Your task to perform on an android device: toggle javascript in the chrome app Image 0: 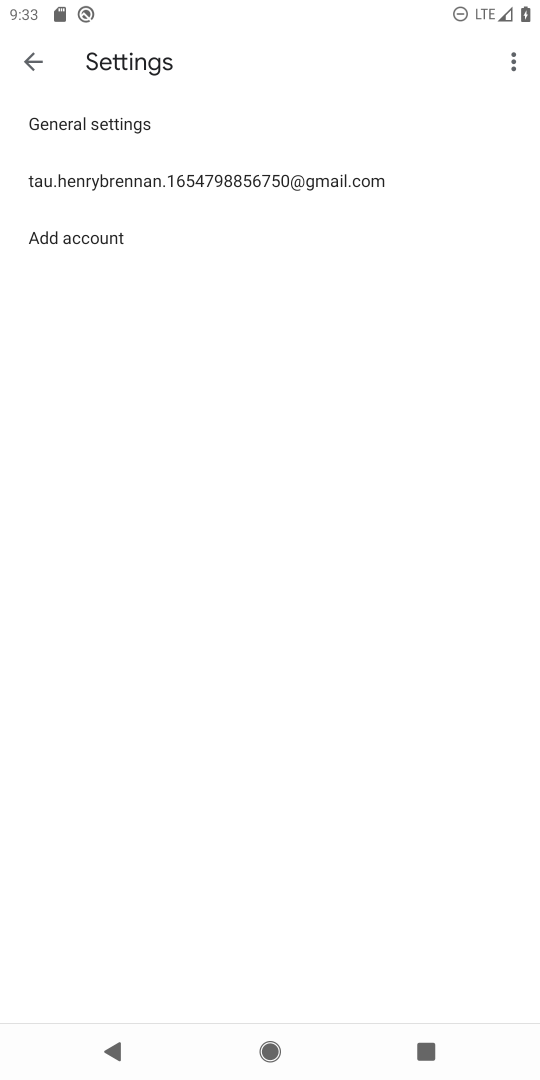
Step 0: press home button
Your task to perform on an android device: toggle javascript in the chrome app Image 1: 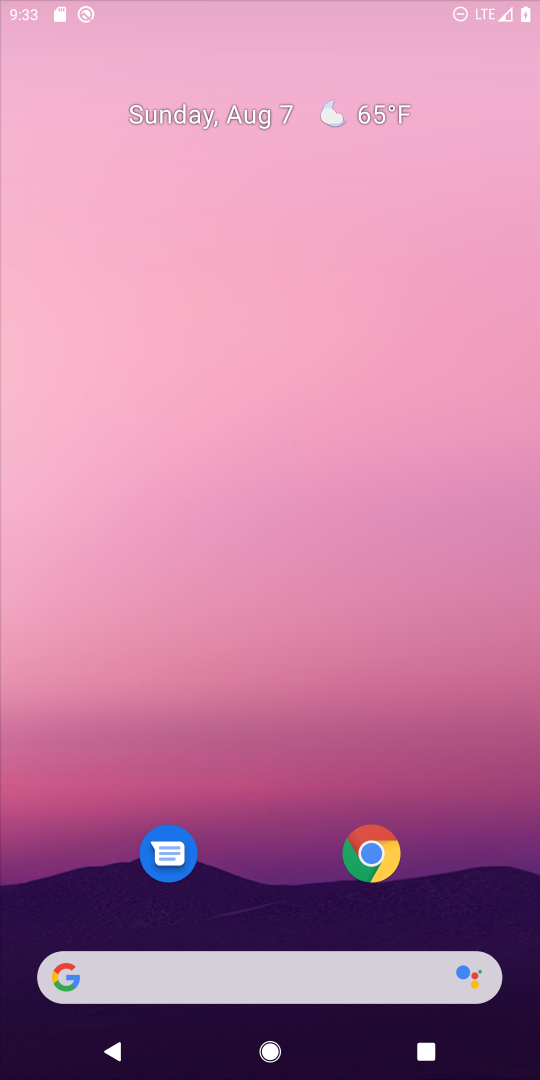
Step 1: drag from (239, 994) to (232, 60)
Your task to perform on an android device: toggle javascript in the chrome app Image 2: 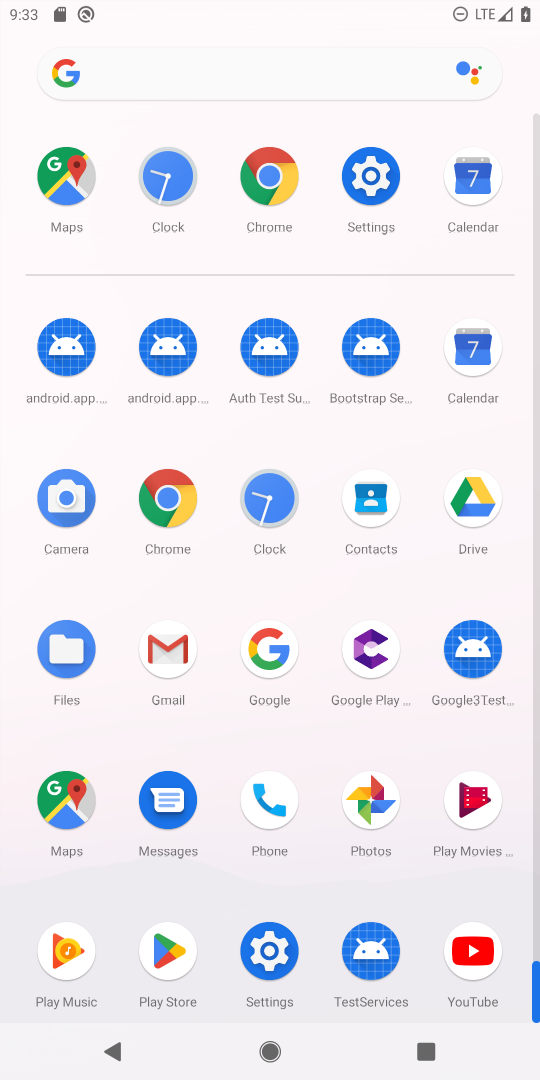
Step 2: click (276, 180)
Your task to perform on an android device: toggle javascript in the chrome app Image 3: 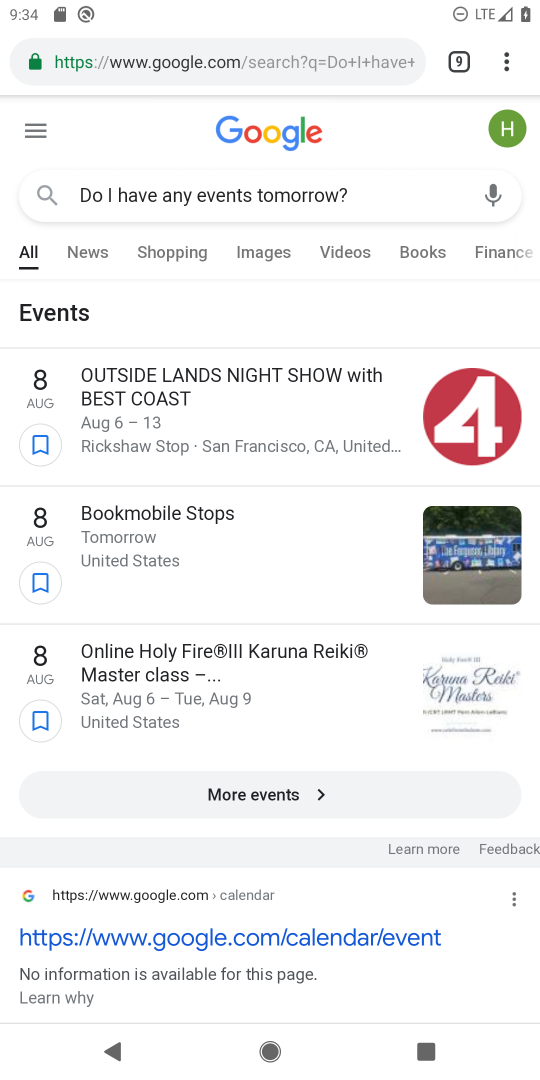
Step 3: click (512, 62)
Your task to perform on an android device: toggle javascript in the chrome app Image 4: 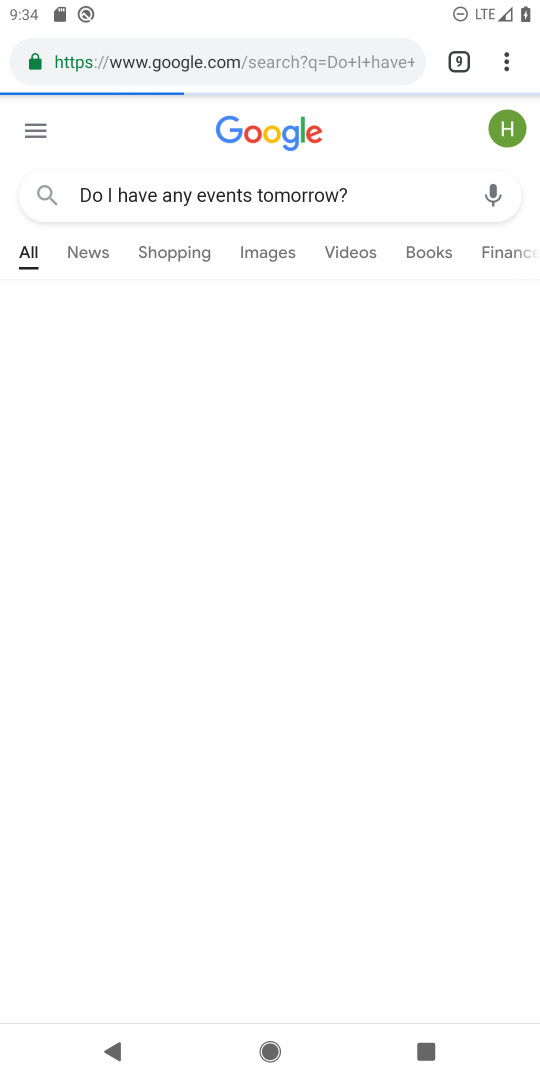
Step 4: click (512, 62)
Your task to perform on an android device: toggle javascript in the chrome app Image 5: 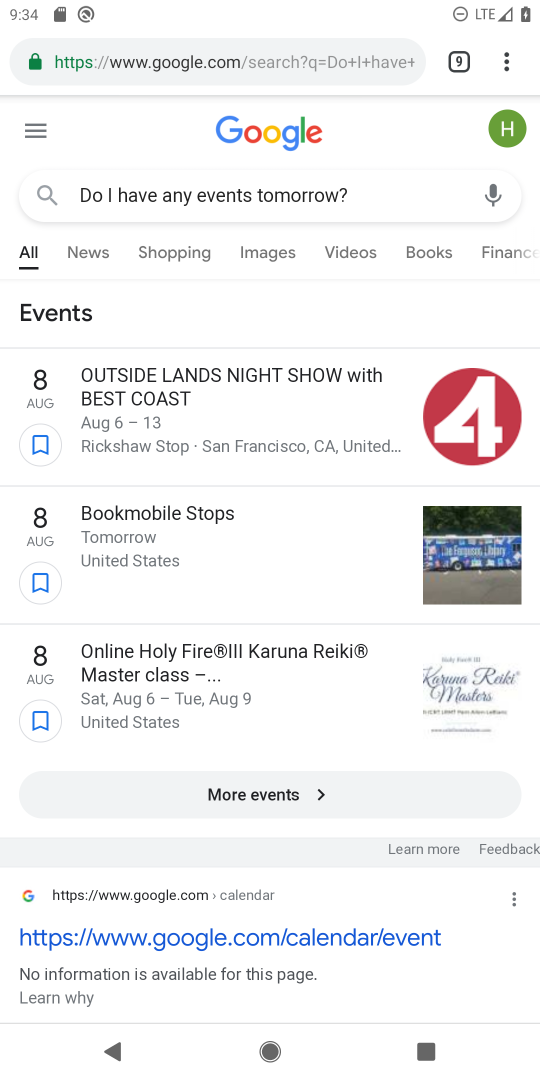
Step 5: click (502, 47)
Your task to perform on an android device: toggle javascript in the chrome app Image 6: 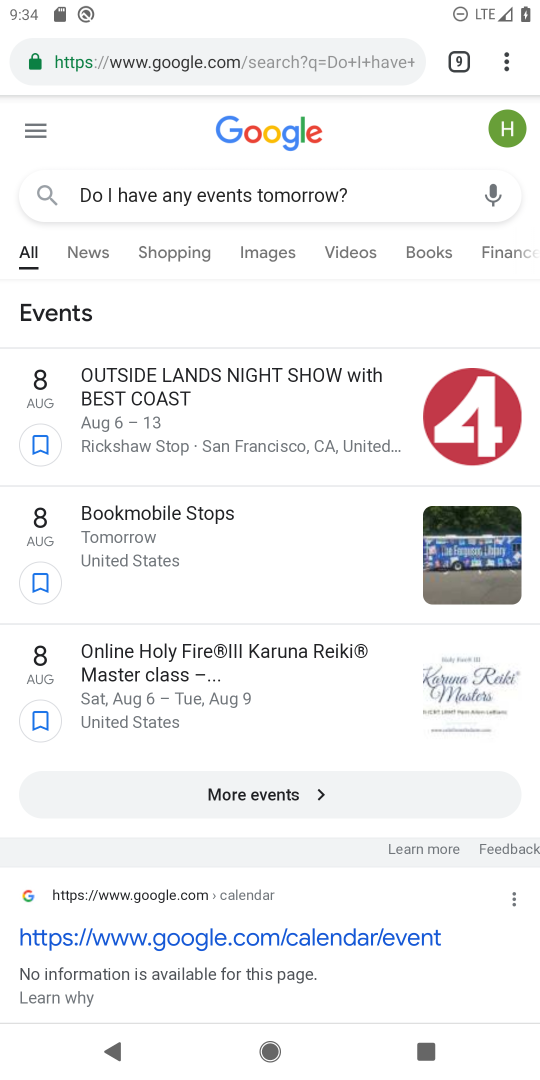
Step 6: click (507, 66)
Your task to perform on an android device: toggle javascript in the chrome app Image 7: 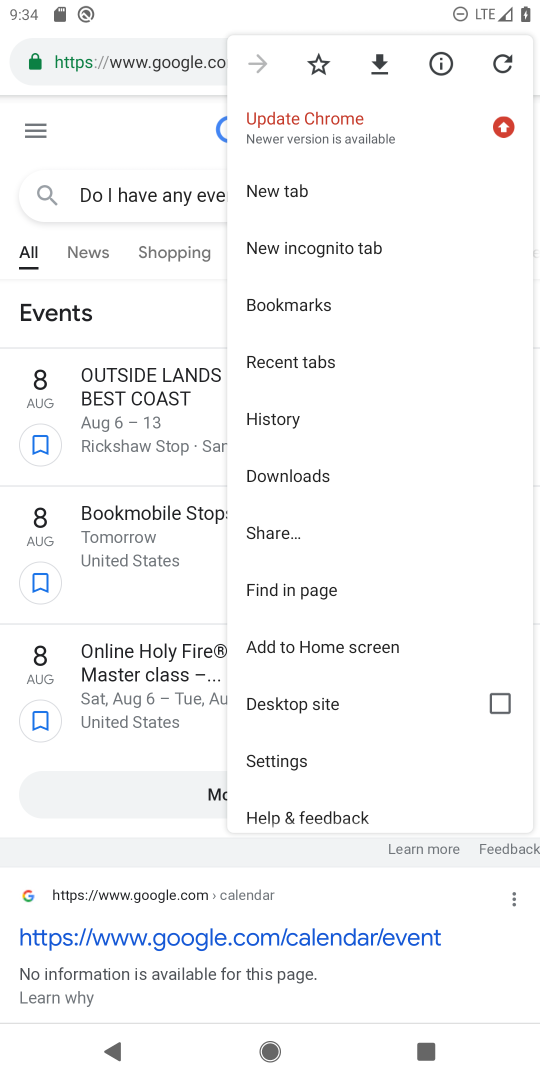
Step 7: click (281, 754)
Your task to perform on an android device: toggle javascript in the chrome app Image 8: 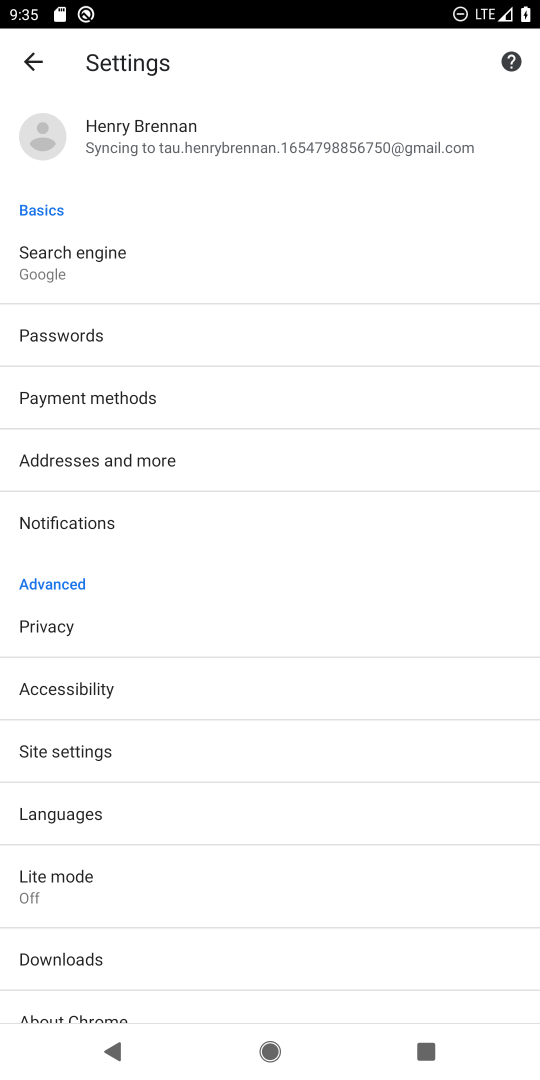
Step 8: drag from (185, 897) to (268, 485)
Your task to perform on an android device: toggle javascript in the chrome app Image 9: 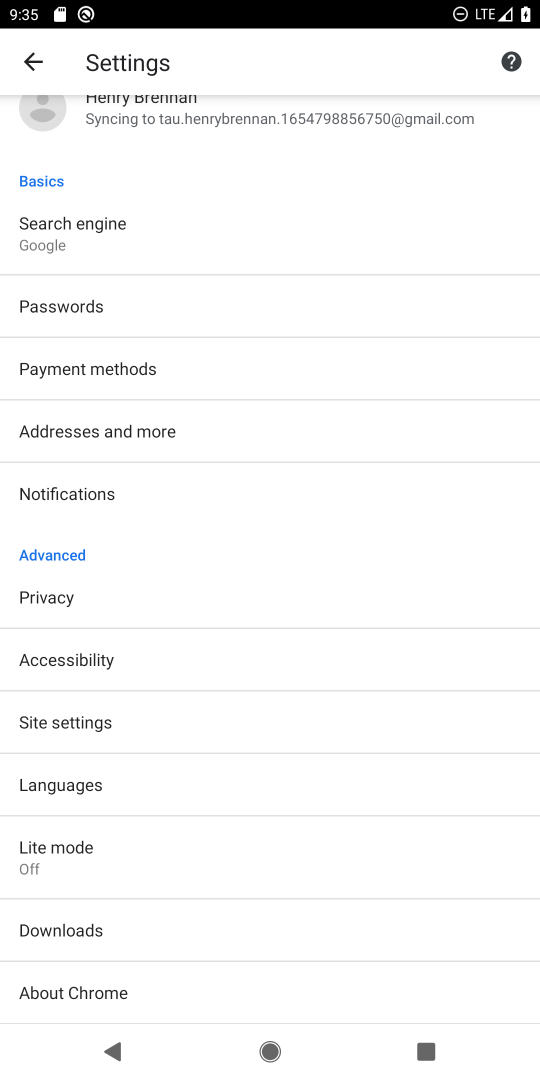
Step 9: click (119, 719)
Your task to perform on an android device: toggle javascript in the chrome app Image 10: 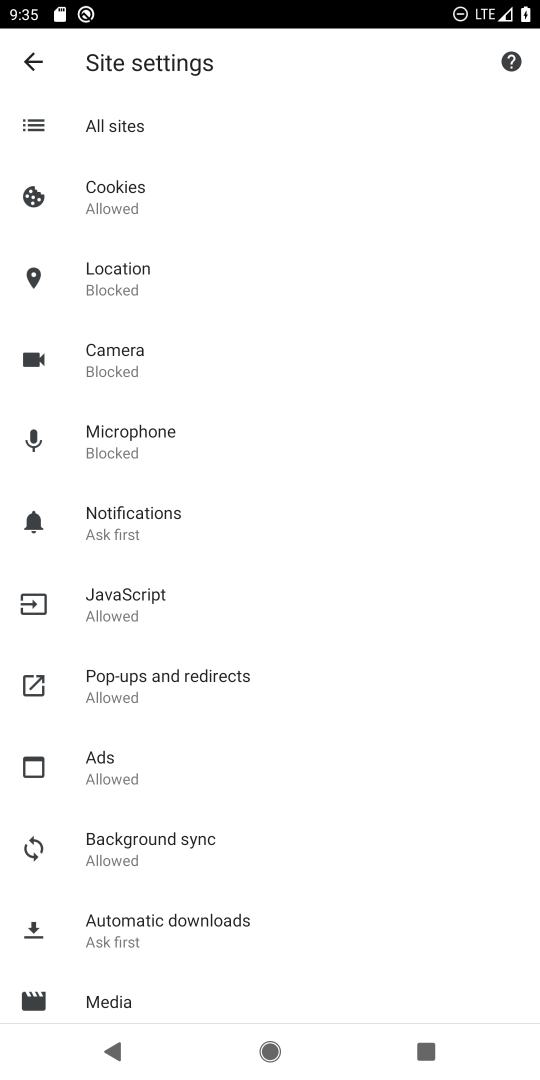
Step 10: click (150, 597)
Your task to perform on an android device: toggle javascript in the chrome app Image 11: 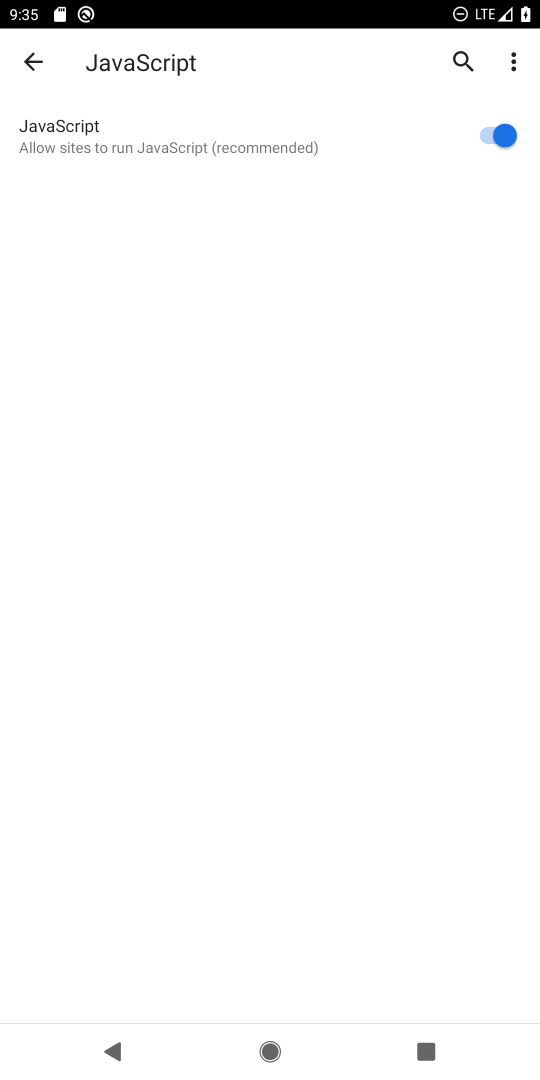
Step 11: click (492, 135)
Your task to perform on an android device: toggle javascript in the chrome app Image 12: 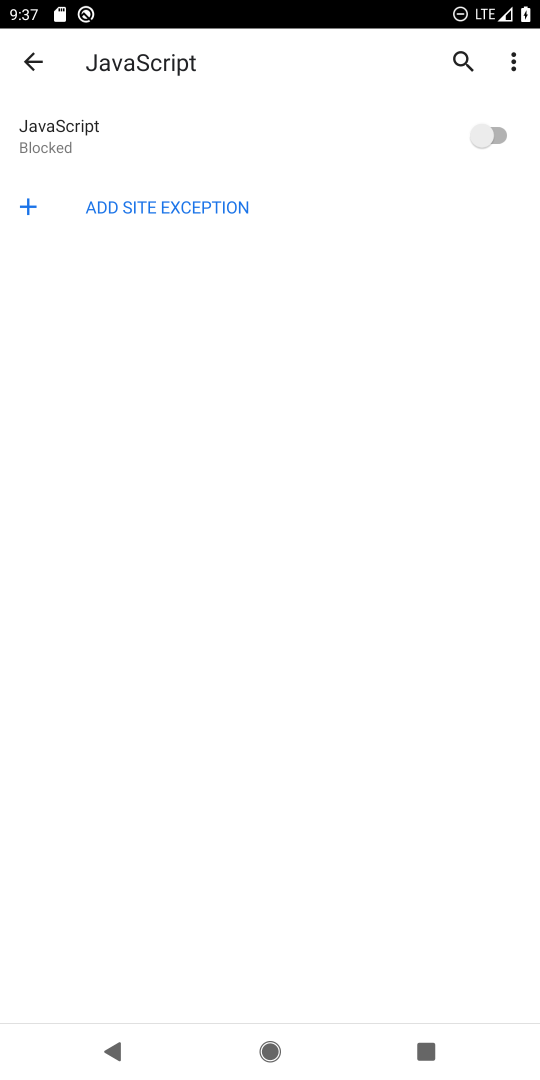
Step 12: task complete